Your task to perform on an android device: Go to notification settings Image 0: 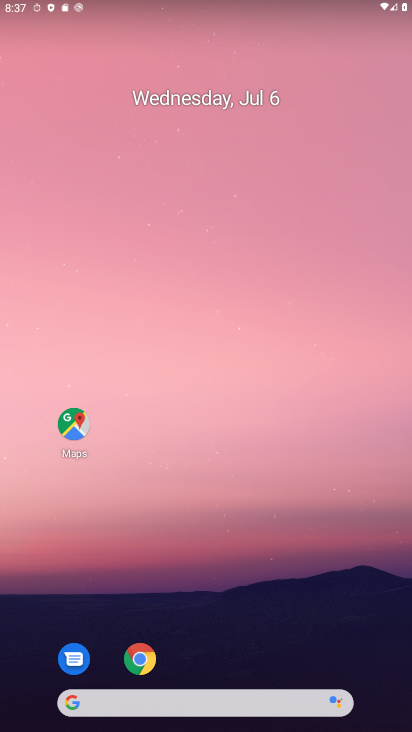
Step 0: drag from (349, 586) to (351, 147)
Your task to perform on an android device: Go to notification settings Image 1: 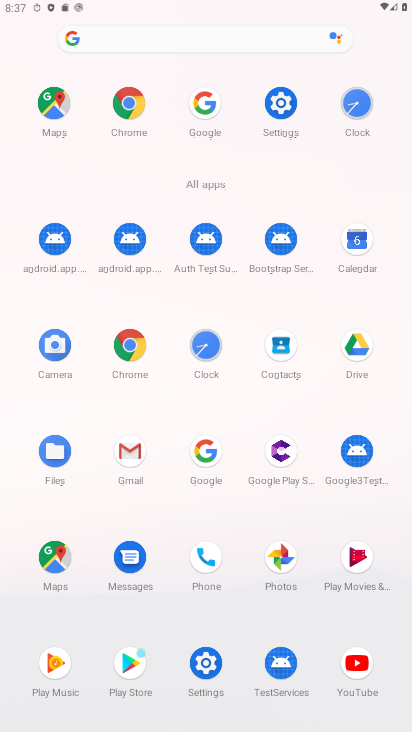
Step 1: click (215, 665)
Your task to perform on an android device: Go to notification settings Image 2: 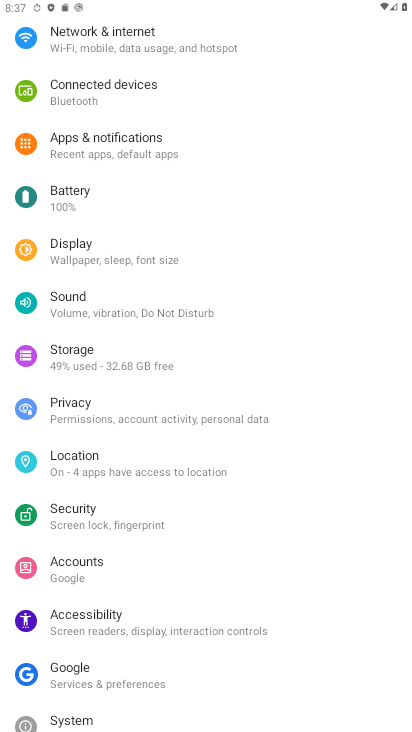
Step 2: drag from (323, 342) to (321, 416)
Your task to perform on an android device: Go to notification settings Image 3: 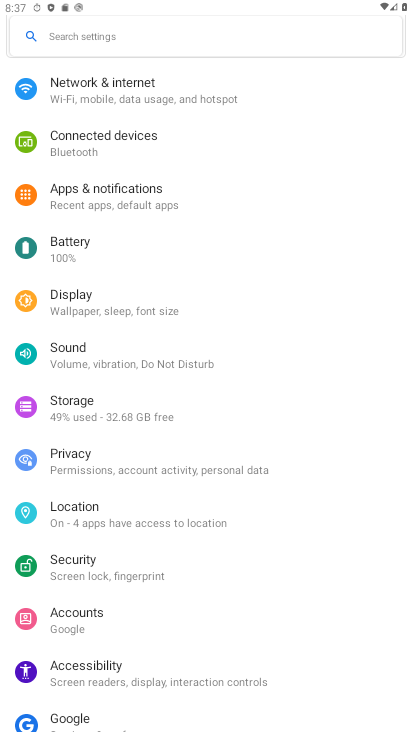
Step 3: drag from (320, 264) to (324, 356)
Your task to perform on an android device: Go to notification settings Image 4: 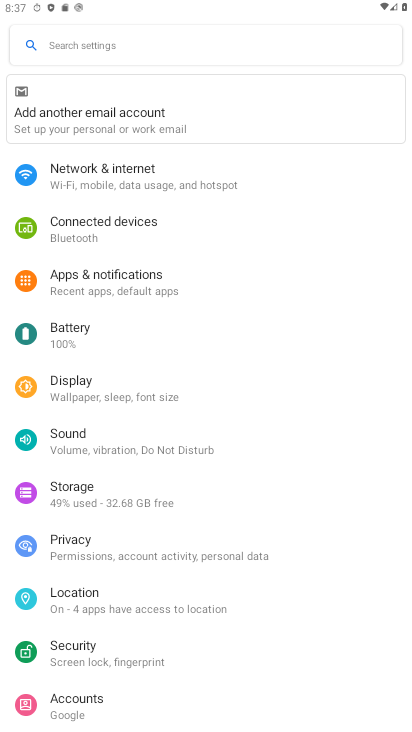
Step 4: drag from (323, 198) to (325, 314)
Your task to perform on an android device: Go to notification settings Image 5: 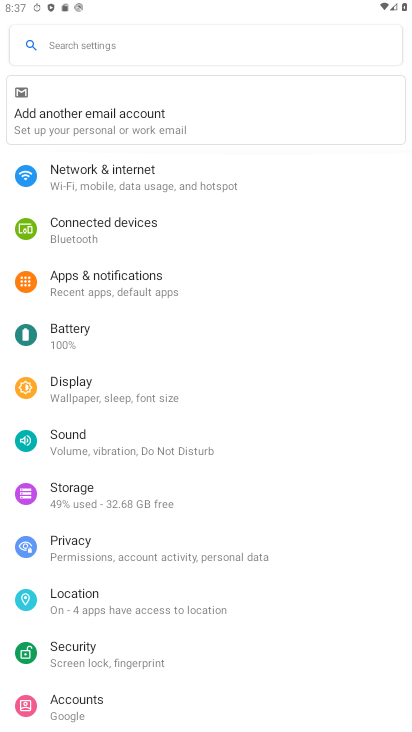
Step 5: click (210, 300)
Your task to perform on an android device: Go to notification settings Image 6: 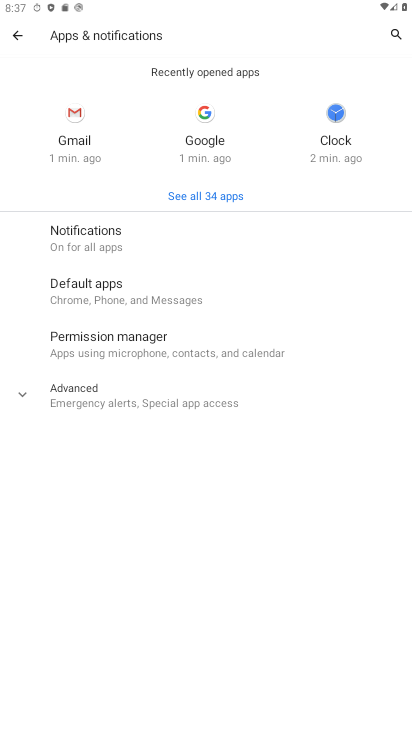
Step 6: click (165, 246)
Your task to perform on an android device: Go to notification settings Image 7: 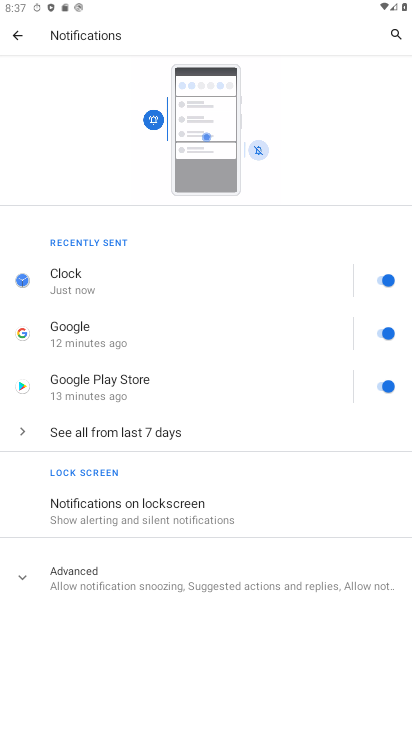
Step 7: task complete